Your task to perform on an android device: Open Android settings Image 0: 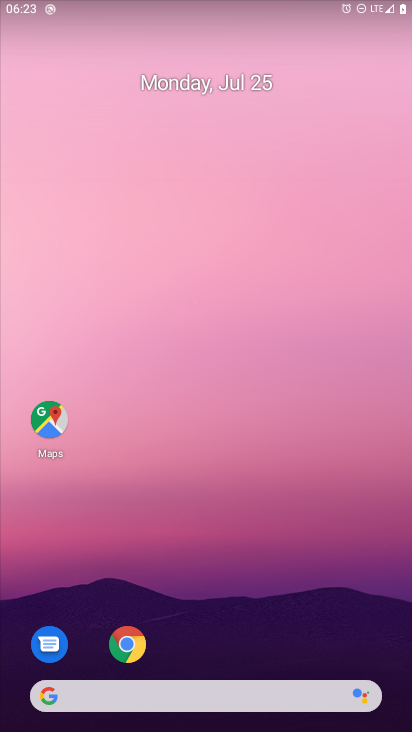
Step 0: press home button
Your task to perform on an android device: Open Android settings Image 1: 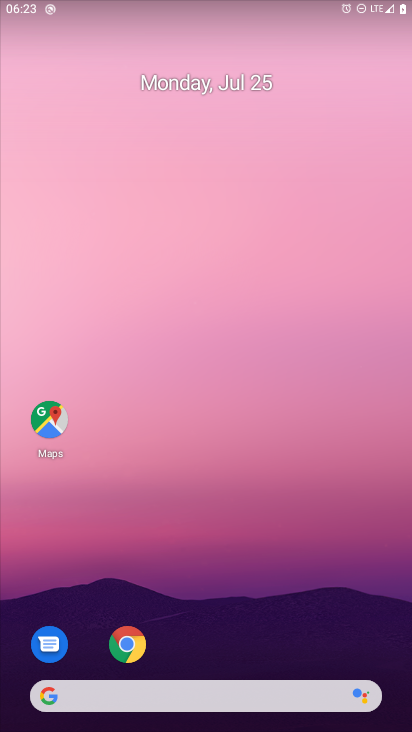
Step 1: drag from (255, 664) to (177, 196)
Your task to perform on an android device: Open Android settings Image 2: 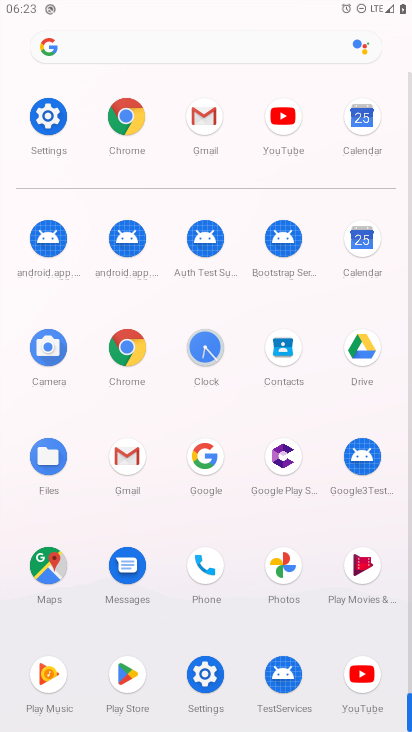
Step 2: click (48, 119)
Your task to perform on an android device: Open Android settings Image 3: 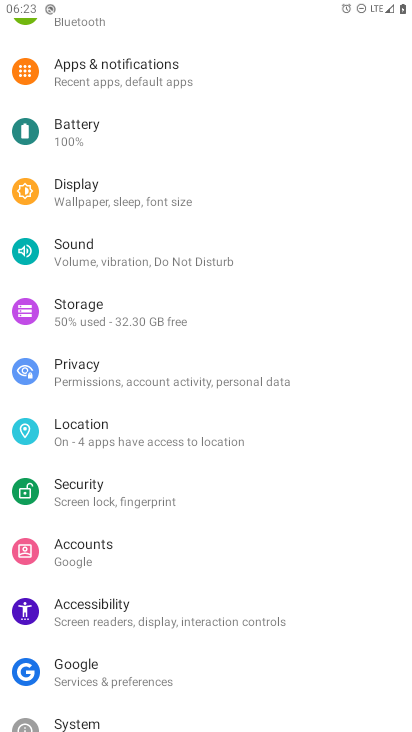
Step 3: task complete